Your task to perform on an android device: turn off priority inbox in the gmail app Image 0: 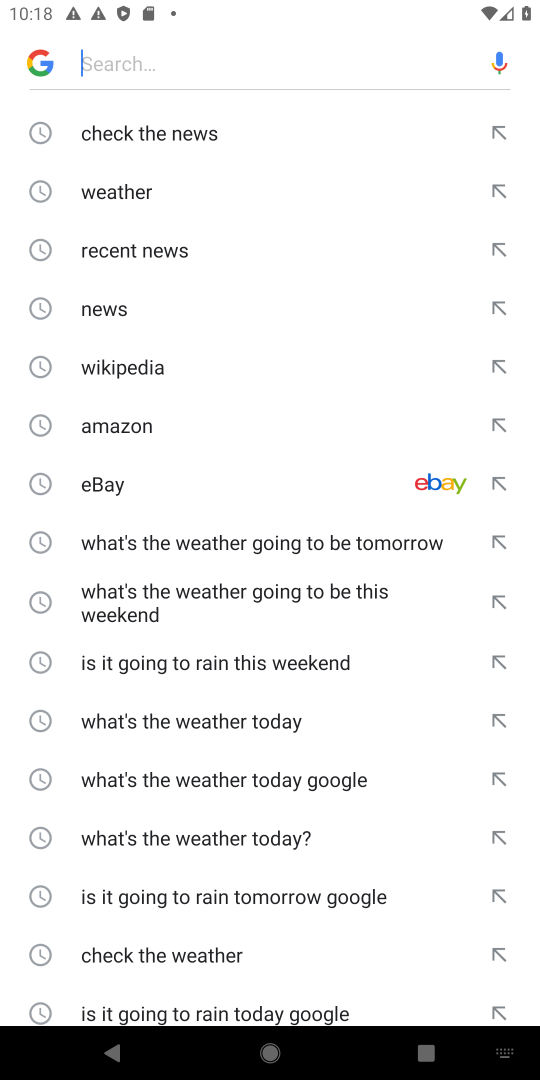
Step 0: press home button
Your task to perform on an android device: turn off priority inbox in the gmail app Image 1: 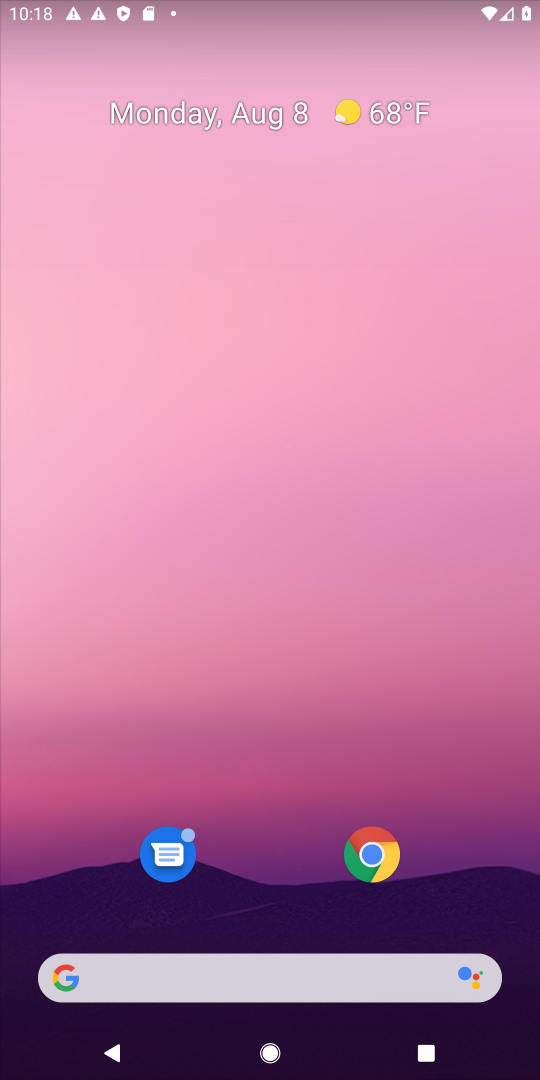
Step 1: drag from (274, 734) to (243, 430)
Your task to perform on an android device: turn off priority inbox in the gmail app Image 2: 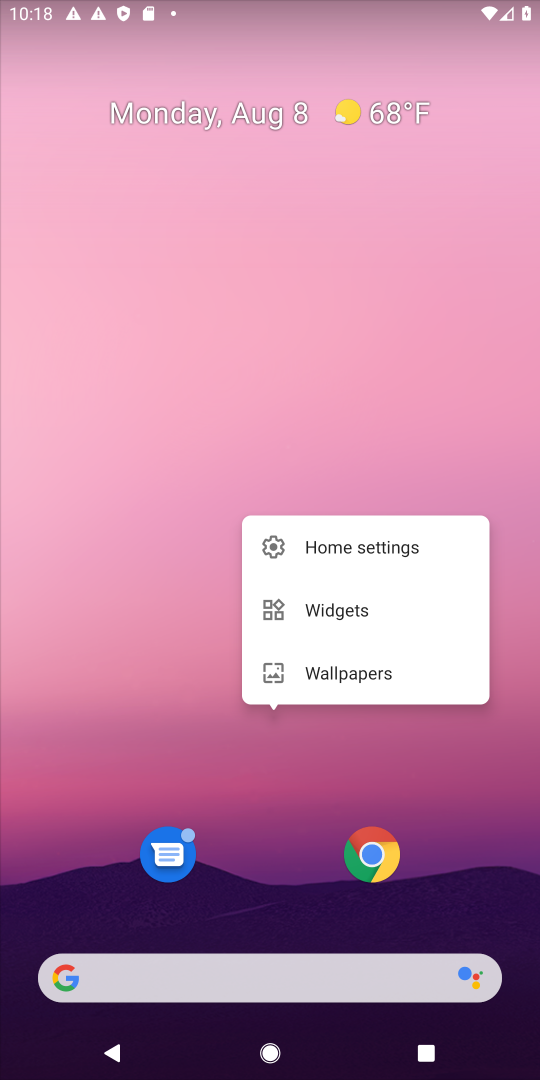
Step 2: click (339, 468)
Your task to perform on an android device: turn off priority inbox in the gmail app Image 3: 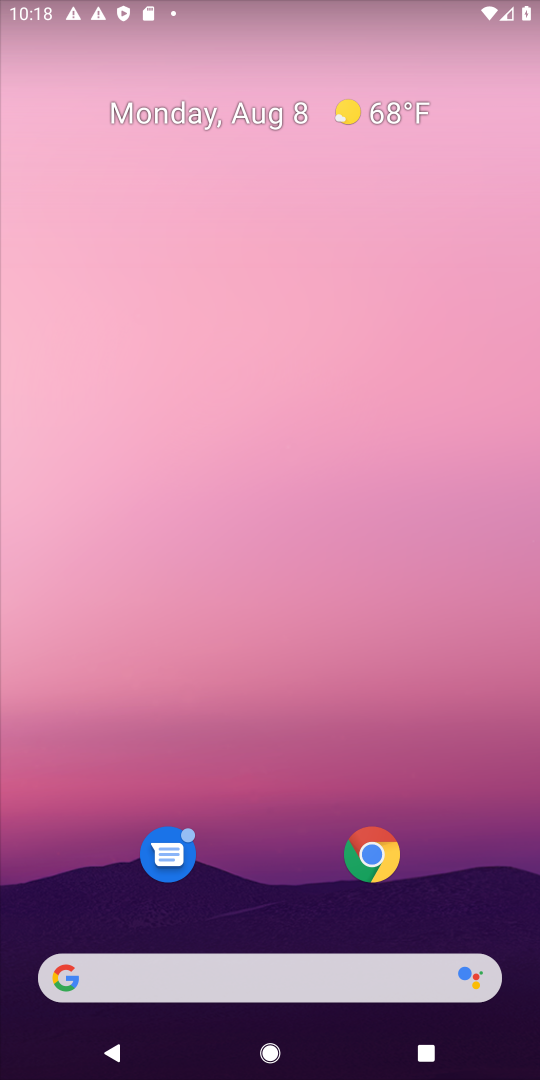
Step 3: drag from (278, 733) to (247, 339)
Your task to perform on an android device: turn off priority inbox in the gmail app Image 4: 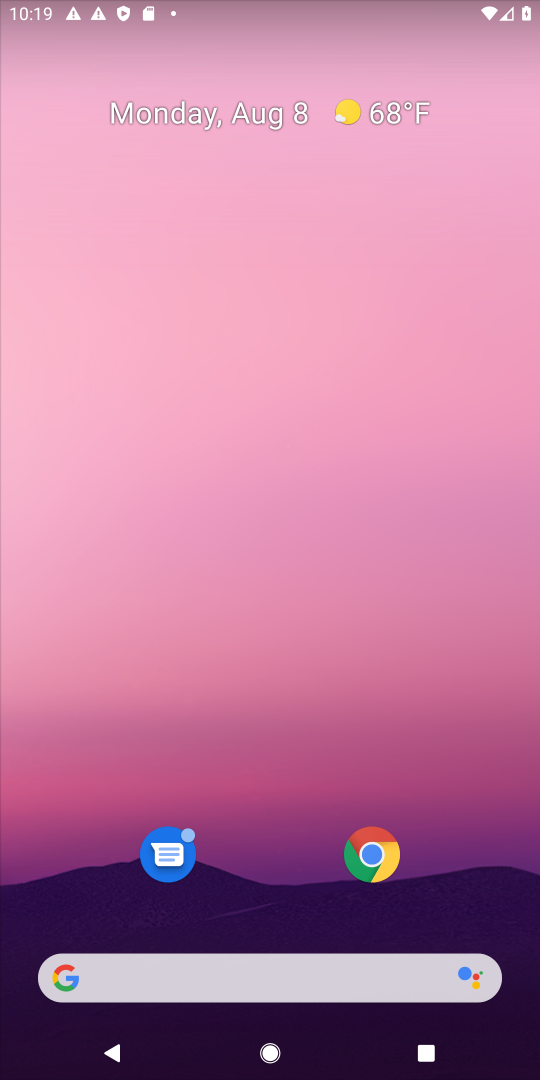
Step 4: drag from (317, 610) to (292, 315)
Your task to perform on an android device: turn off priority inbox in the gmail app Image 5: 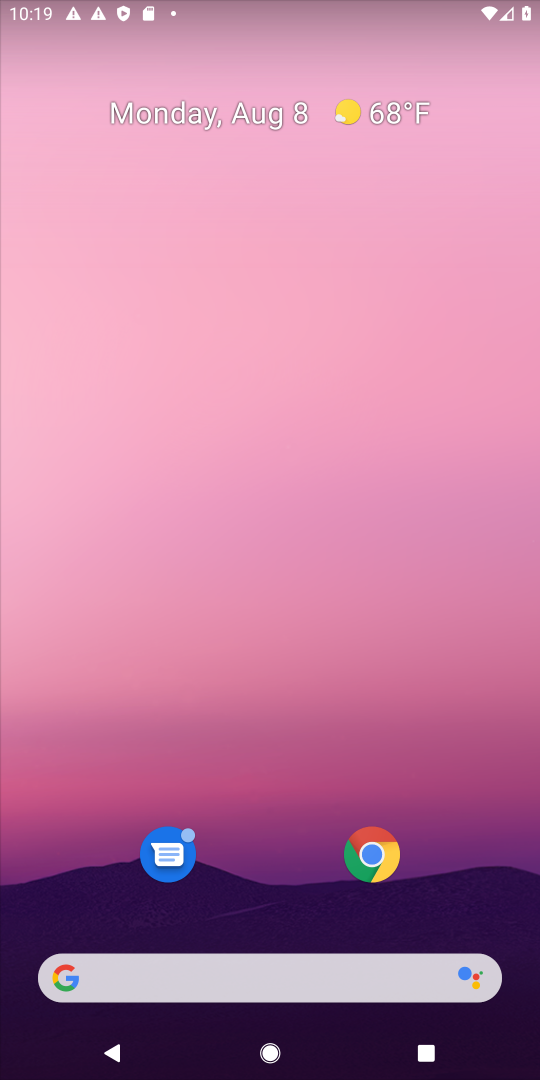
Step 5: drag from (270, 706) to (296, 242)
Your task to perform on an android device: turn off priority inbox in the gmail app Image 6: 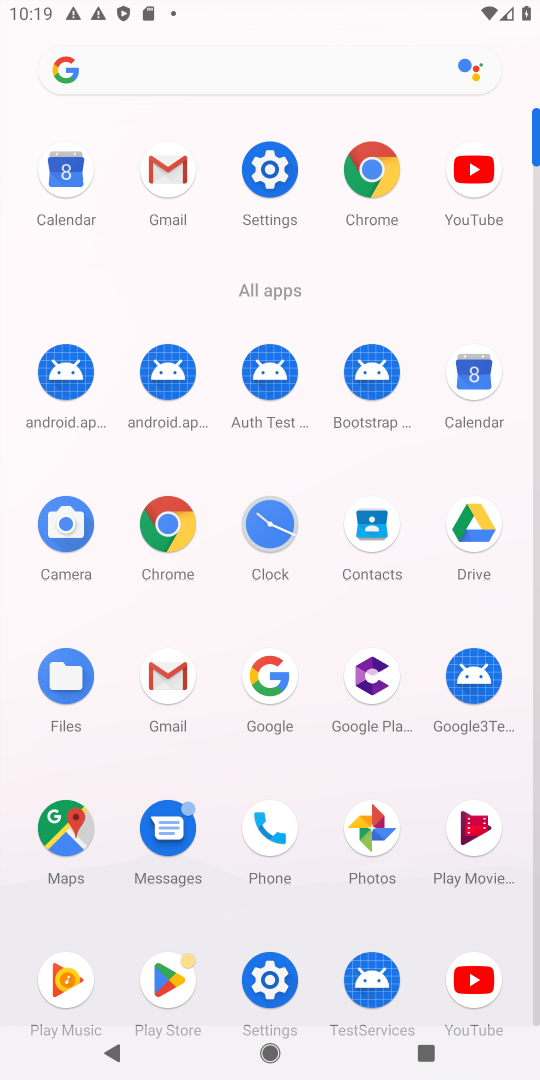
Step 6: click (165, 178)
Your task to perform on an android device: turn off priority inbox in the gmail app Image 7: 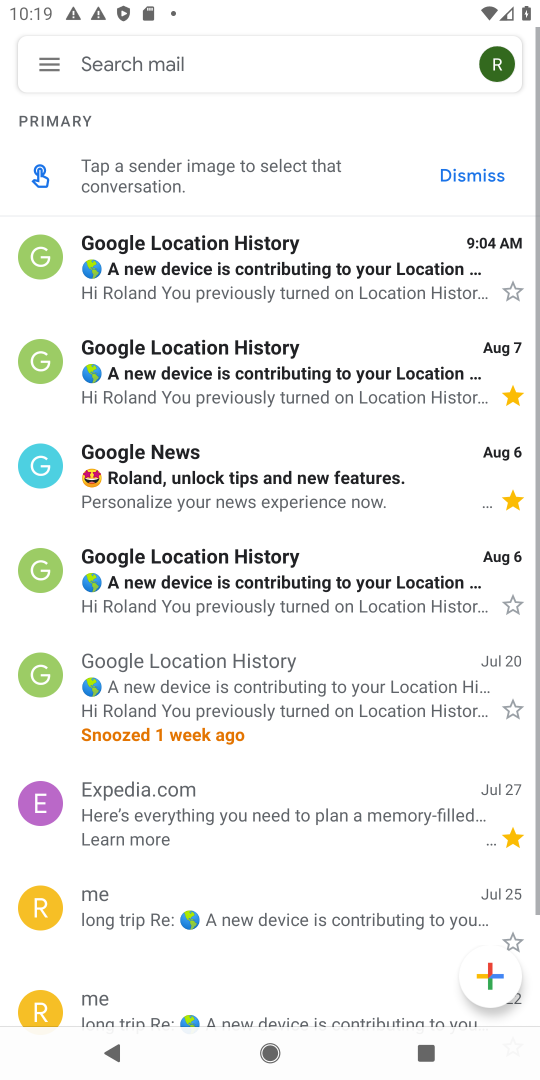
Step 7: task complete